Your task to perform on an android device: see sites visited before in the chrome app Image 0: 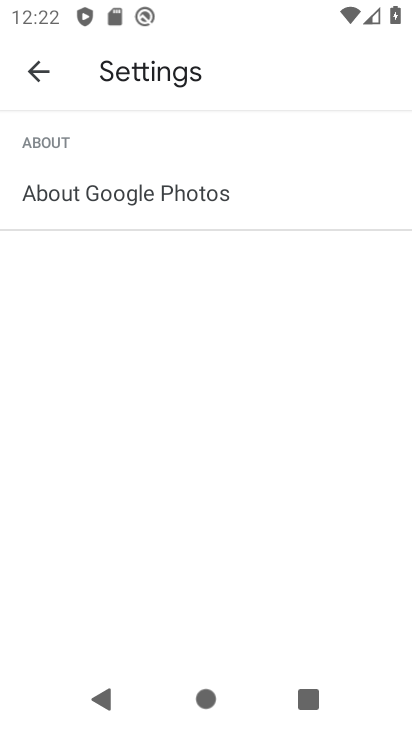
Step 0: press home button
Your task to perform on an android device: see sites visited before in the chrome app Image 1: 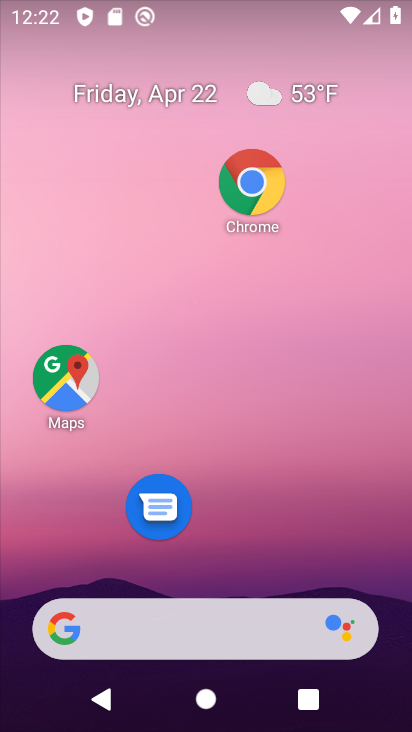
Step 1: click (242, 180)
Your task to perform on an android device: see sites visited before in the chrome app Image 2: 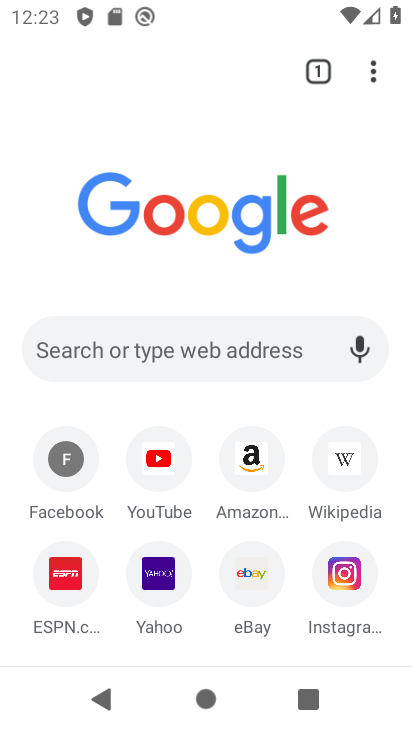
Step 2: task complete